Your task to perform on an android device: open chrome and create a bookmark for the current page Image 0: 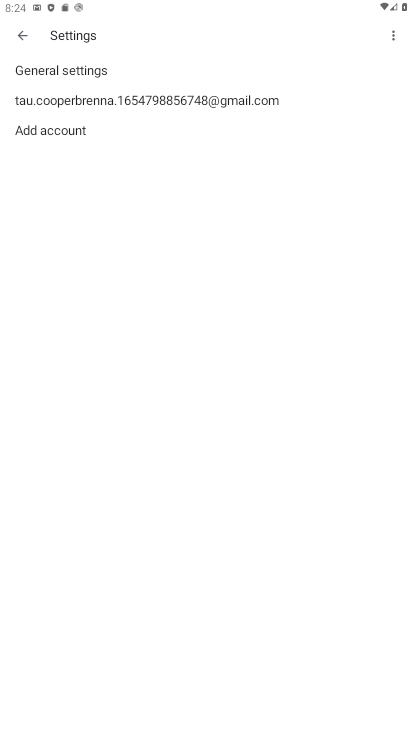
Step 0: click (16, 29)
Your task to perform on an android device: open chrome and create a bookmark for the current page Image 1: 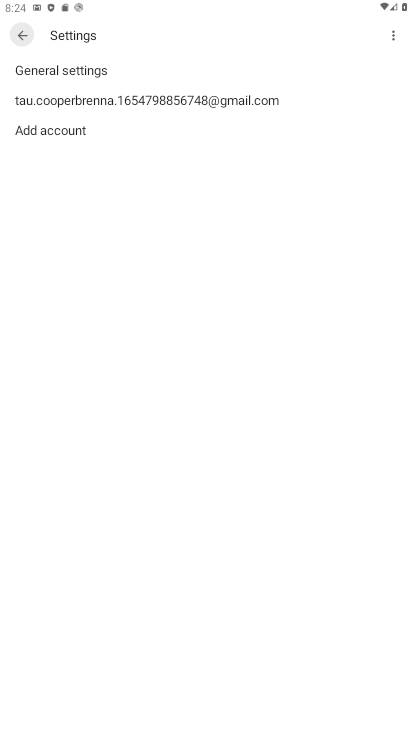
Step 1: click (16, 29)
Your task to perform on an android device: open chrome and create a bookmark for the current page Image 2: 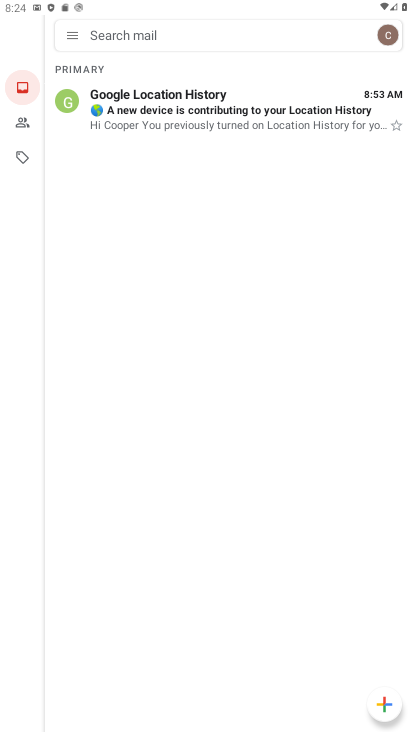
Step 2: press back button
Your task to perform on an android device: open chrome and create a bookmark for the current page Image 3: 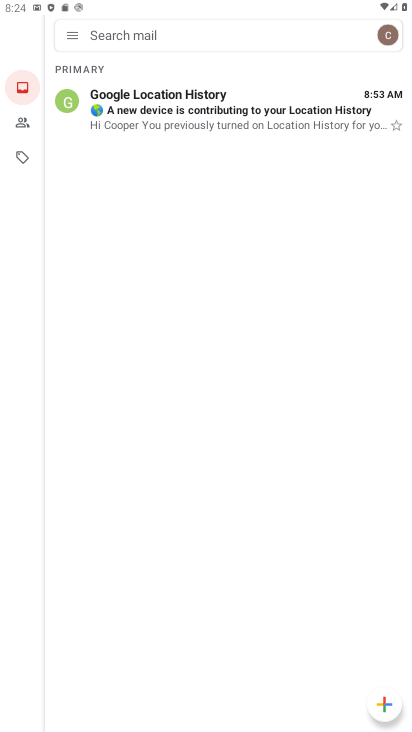
Step 3: press back button
Your task to perform on an android device: open chrome and create a bookmark for the current page Image 4: 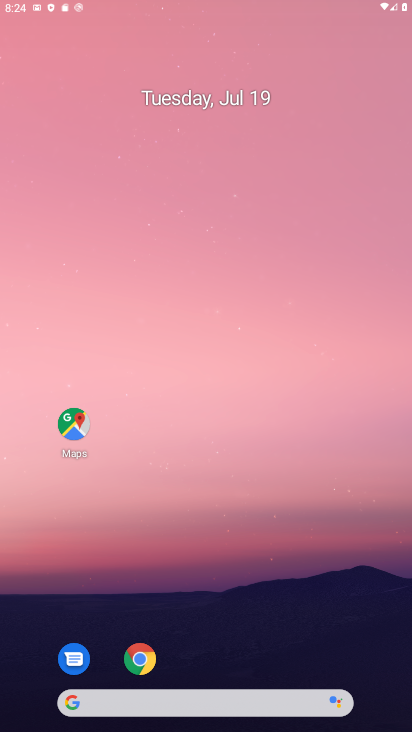
Step 4: press back button
Your task to perform on an android device: open chrome and create a bookmark for the current page Image 5: 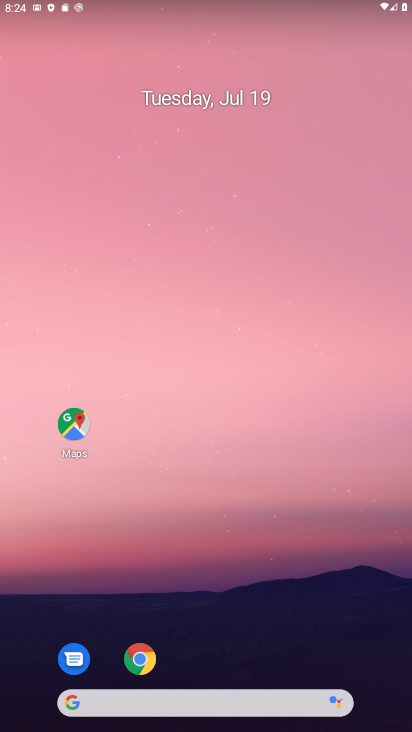
Step 5: press home button
Your task to perform on an android device: open chrome and create a bookmark for the current page Image 6: 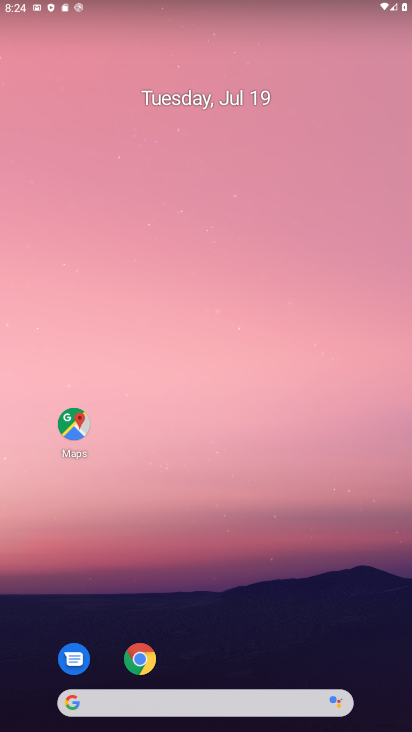
Step 6: drag from (242, 523) to (165, 219)
Your task to perform on an android device: open chrome and create a bookmark for the current page Image 7: 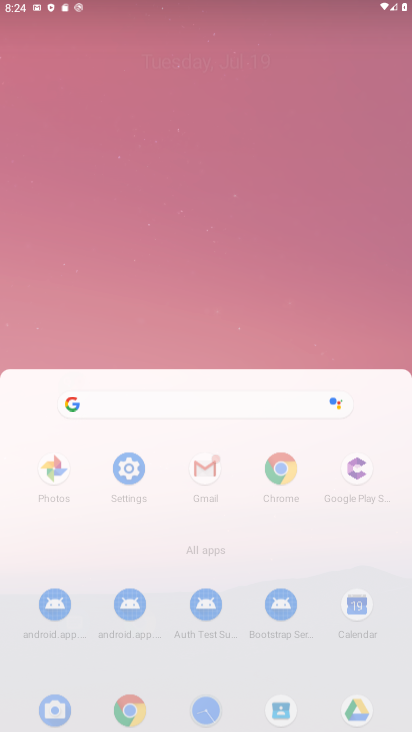
Step 7: drag from (332, 651) to (263, 214)
Your task to perform on an android device: open chrome and create a bookmark for the current page Image 8: 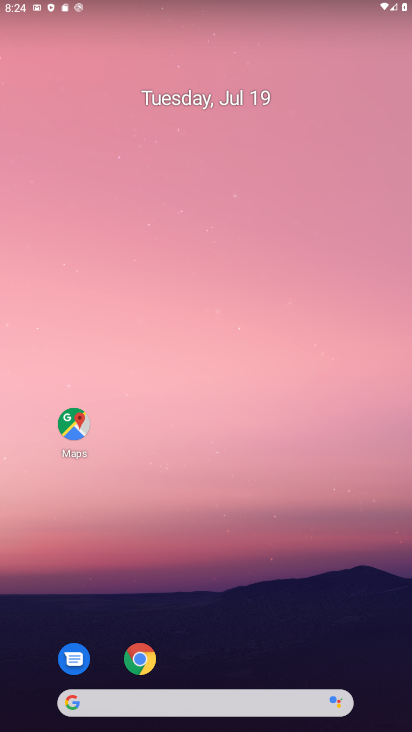
Step 8: drag from (212, 373) to (191, 253)
Your task to perform on an android device: open chrome and create a bookmark for the current page Image 9: 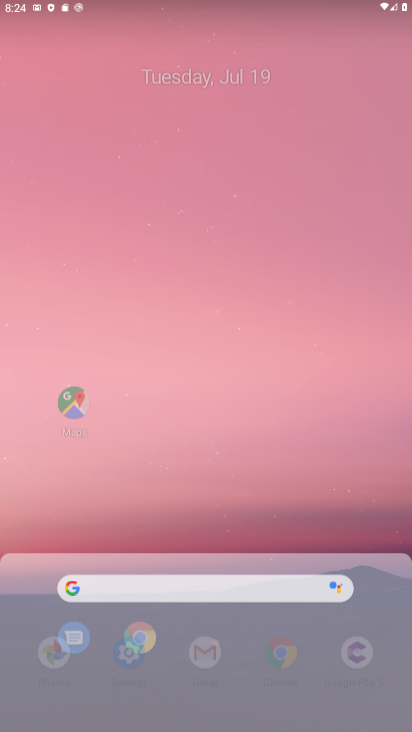
Step 9: drag from (239, 545) to (188, 187)
Your task to perform on an android device: open chrome and create a bookmark for the current page Image 10: 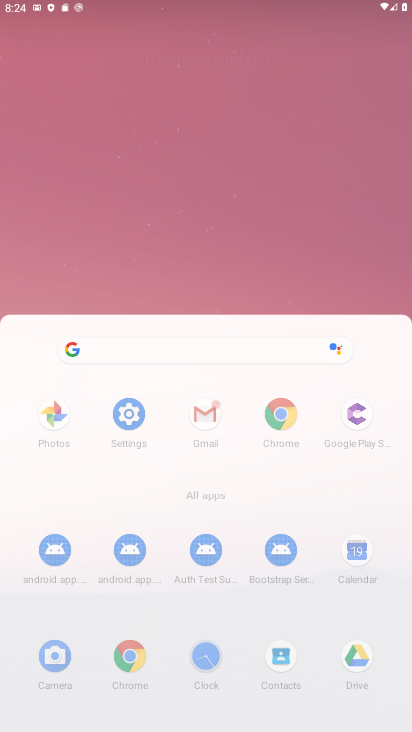
Step 10: drag from (262, 418) to (245, 29)
Your task to perform on an android device: open chrome and create a bookmark for the current page Image 11: 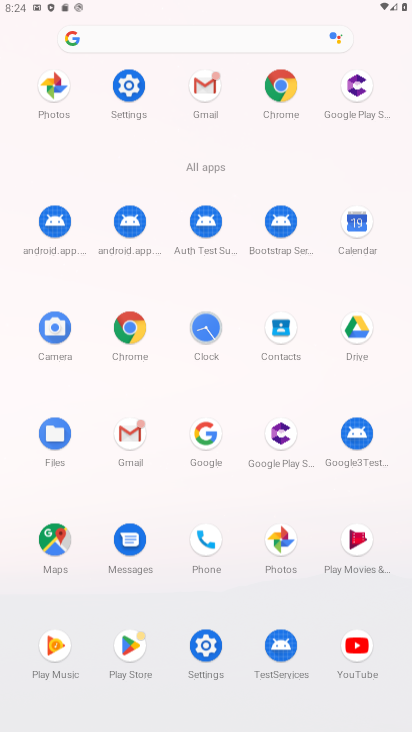
Step 11: drag from (241, 383) to (204, 130)
Your task to perform on an android device: open chrome and create a bookmark for the current page Image 12: 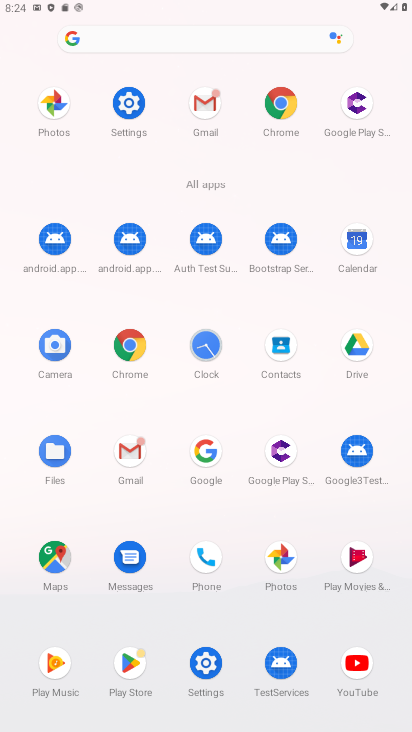
Step 12: click (286, 91)
Your task to perform on an android device: open chrome and create a bookmark for the current page Image 13: 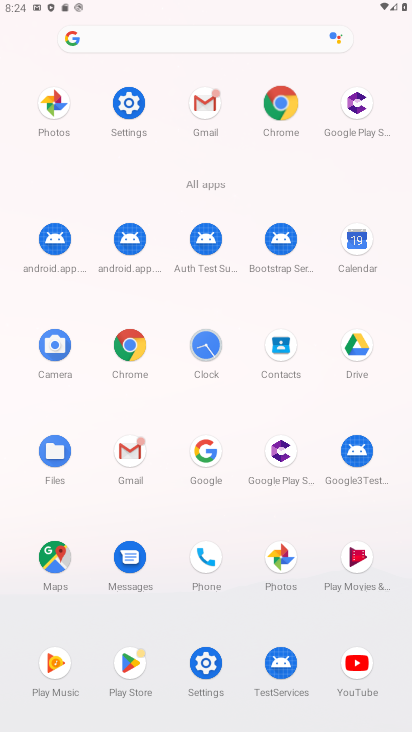
Step 13: click (285, 92)
Your task to perform on an android device: open chrome and create a bookmark for the current page Image 14: 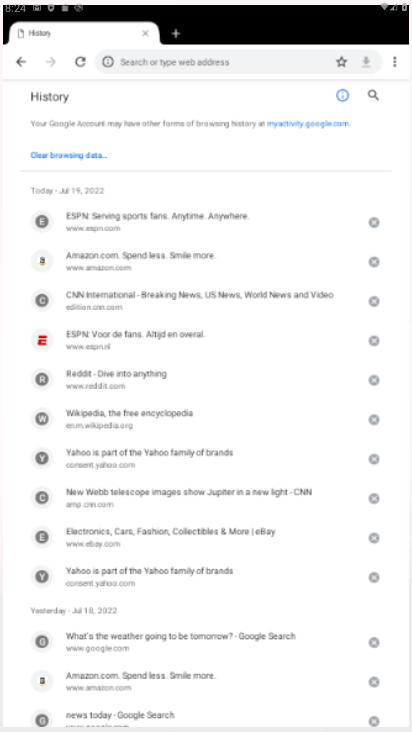
Step 14: click (279, 100)
Your task to perform on an android device: open chrome and create a bookmark for the current page Image 15: 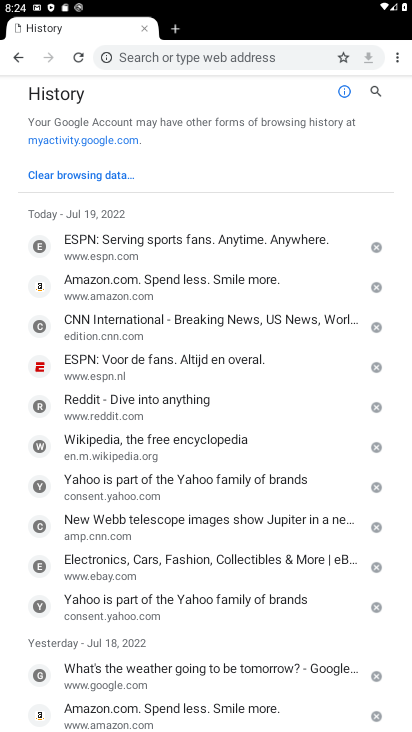
Step 15: click (393, 53)
Your task to perform on an android device: open chrome and create a bookmark for the current page Image 16: 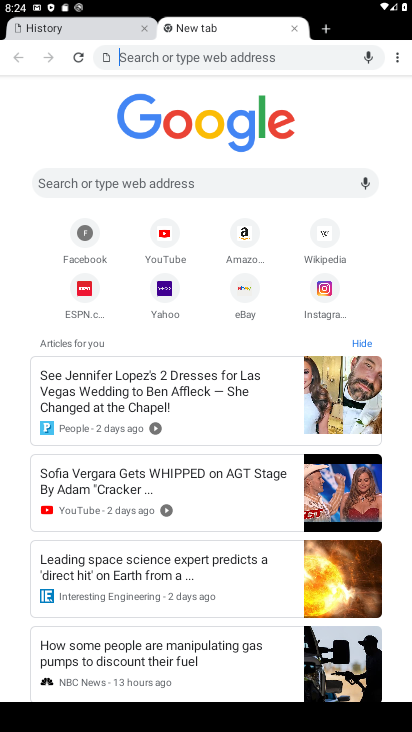
Step 16: drag from (402, 57) to (277, 56)
Your task to perform on an android device: open chrome and create a bookmark for the current page Image 17: 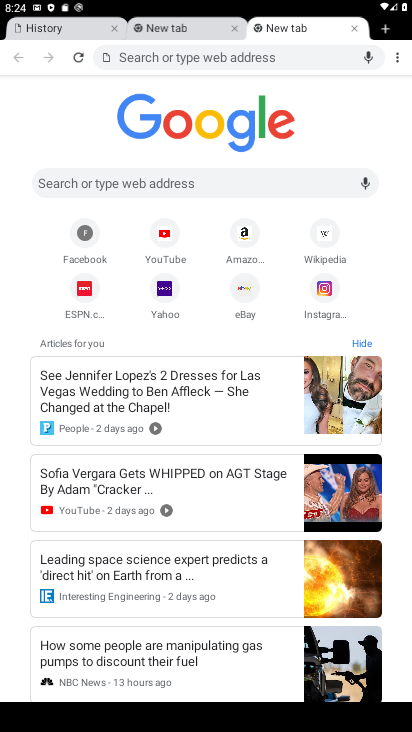
Step 17: click (208, 37)
Your task to perform on an android device: open chrome and create a bookmark for the current page Image 18: 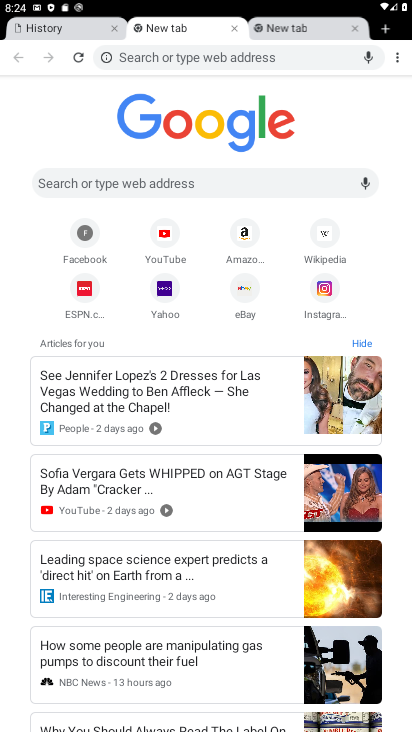
Step 18: click (188, 24)
Your task to perform on an android device: open chrome and create a bookmark for the current page Image 19: 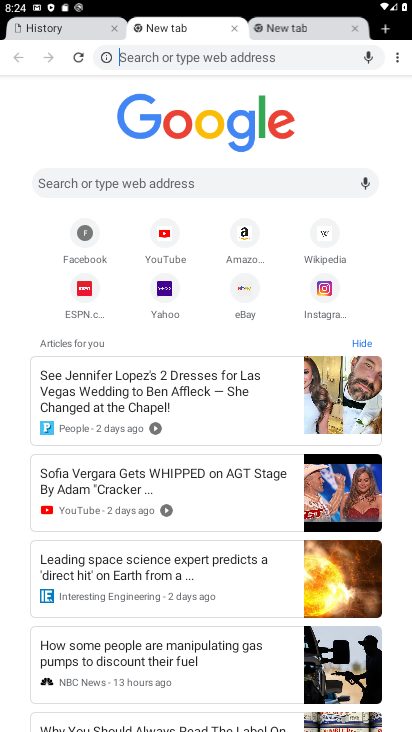
Step 19: click (84, 32)
Your task to perform on an android device: open chrome and create a bookmark for the current page Image 20: 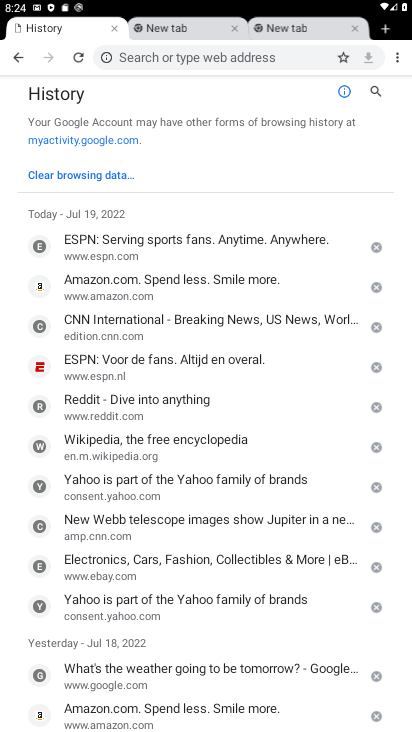
Step 20: click (345, 58)
Your task to perform on an android device: open chrome and create a bookmark for the current page Image 21: 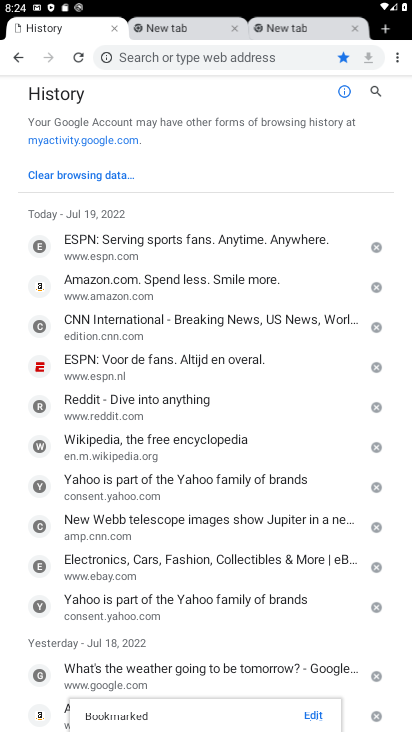
Step 21: task complete